Your task to perform on an android device: turn off notifications in google photos Image 0: 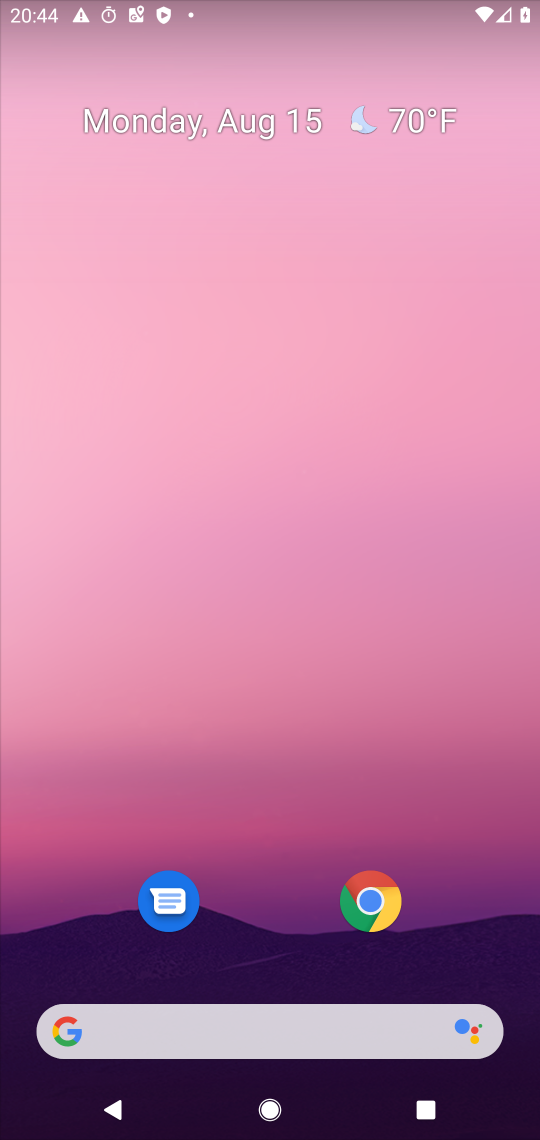
Step 0: drag from (254, 671) to (305, 62)
Your task to perform on an android device: turn off notifications in google photos Image 1: 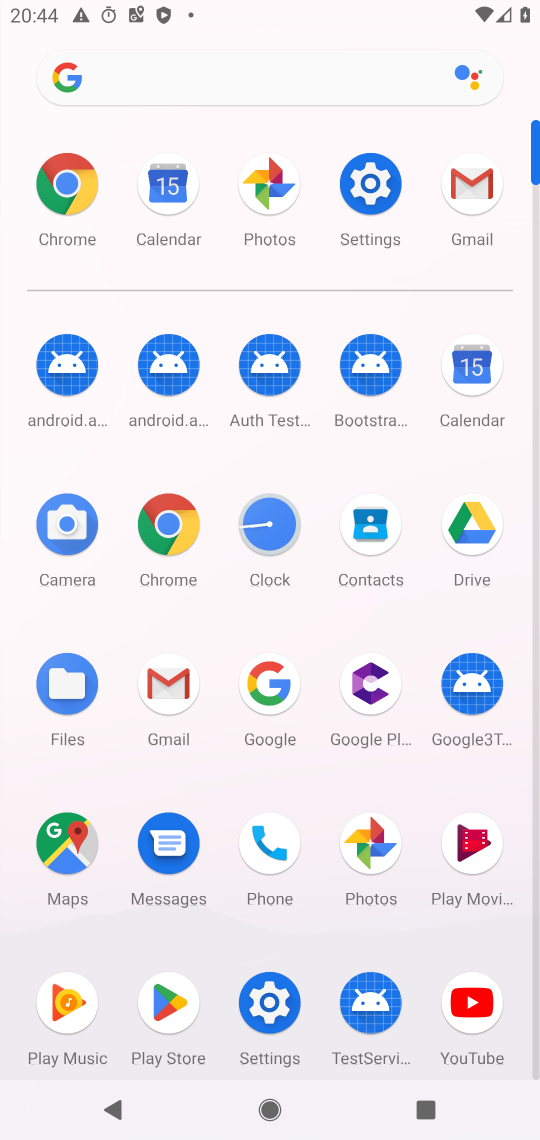
Step 1: click (377, 864)
Your task to perform on an android device: turn off notifications in google photos Image 2: 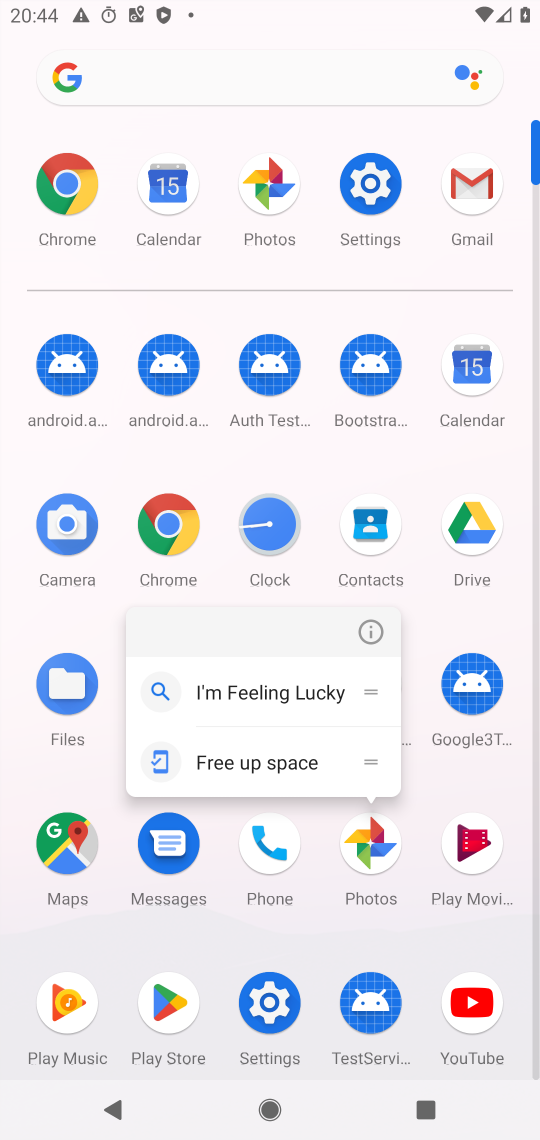
Step 2: click (381, 851)
Your task to perform on an android device: turn off notifications in google photos Image 3: 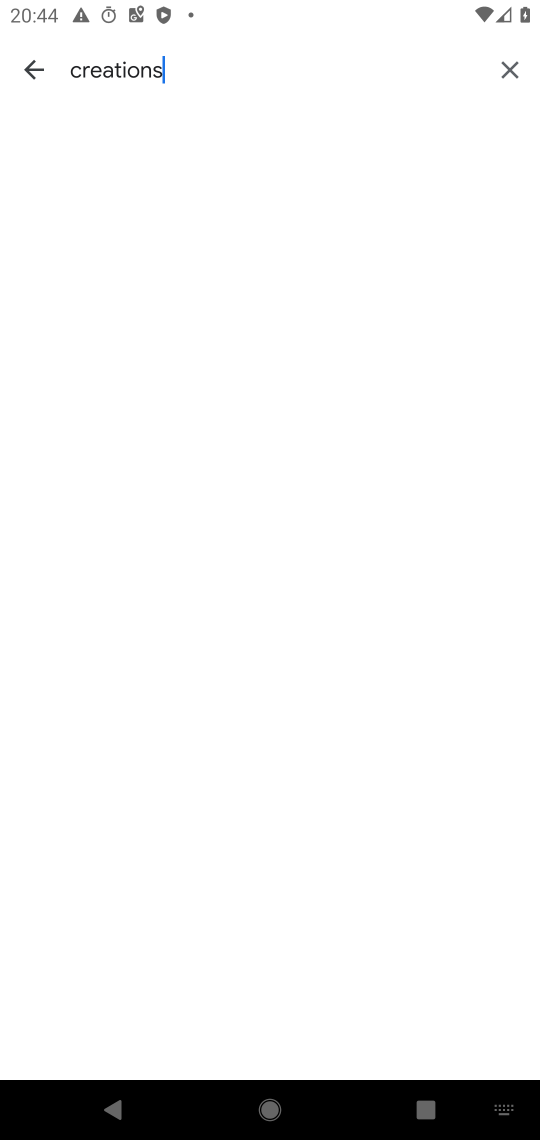
Step 3: click (36, 71)
Your task to perform on an android device: turn off notifications in google photos Image 4: 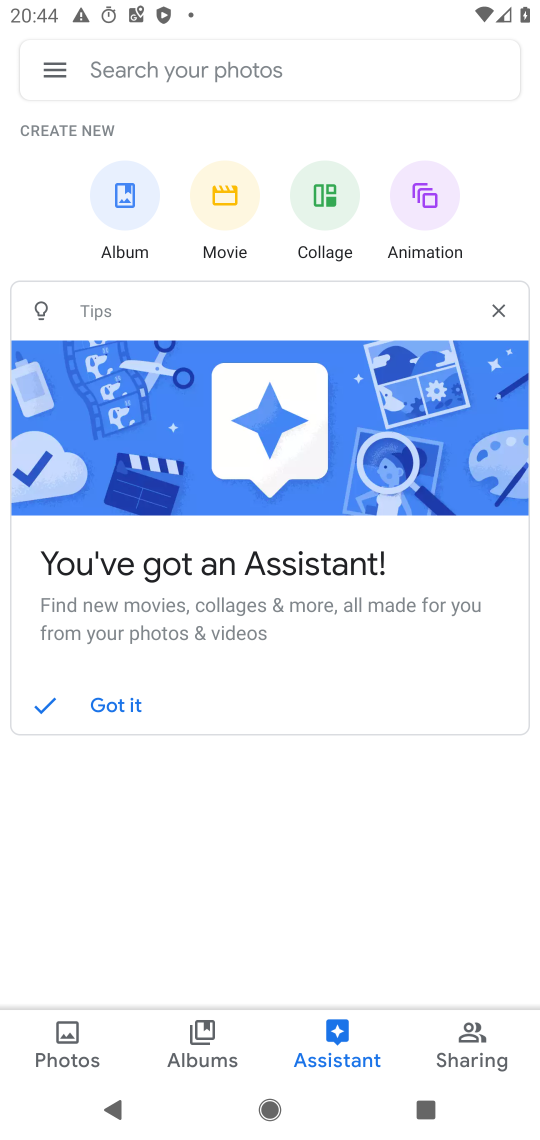
Step 4: click (50, 69)
Your task to perform on an android device: turn off notifications in google photos Image 5: 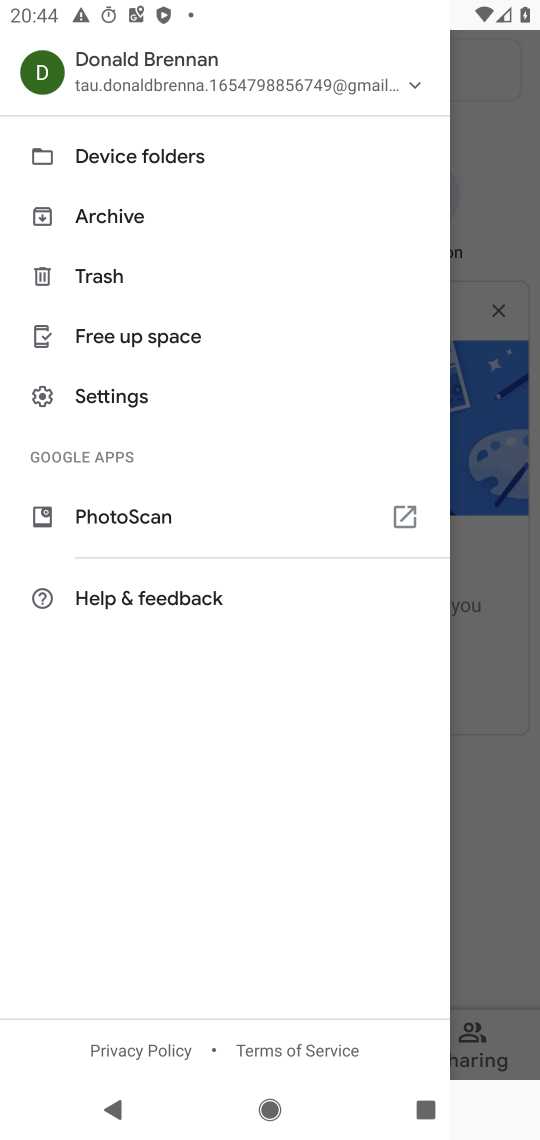
Step 5: click (136, 417)
Your task to perform on an android device: turn off notifications in google photos Image 6: 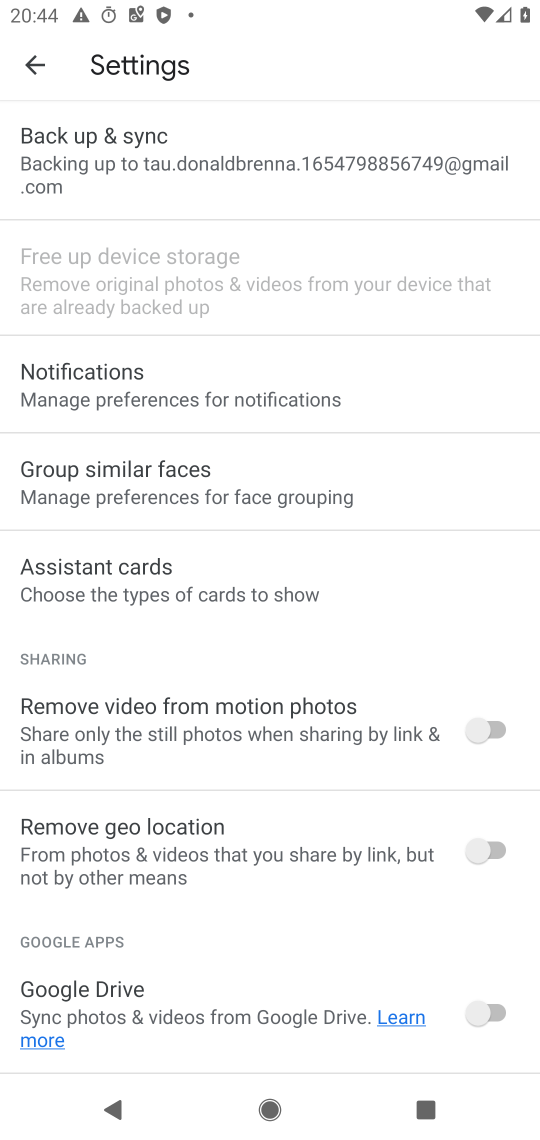
Step 6: click (188, 391)
Your task to perform on an android device: turn off notifications in google photos Image 7: 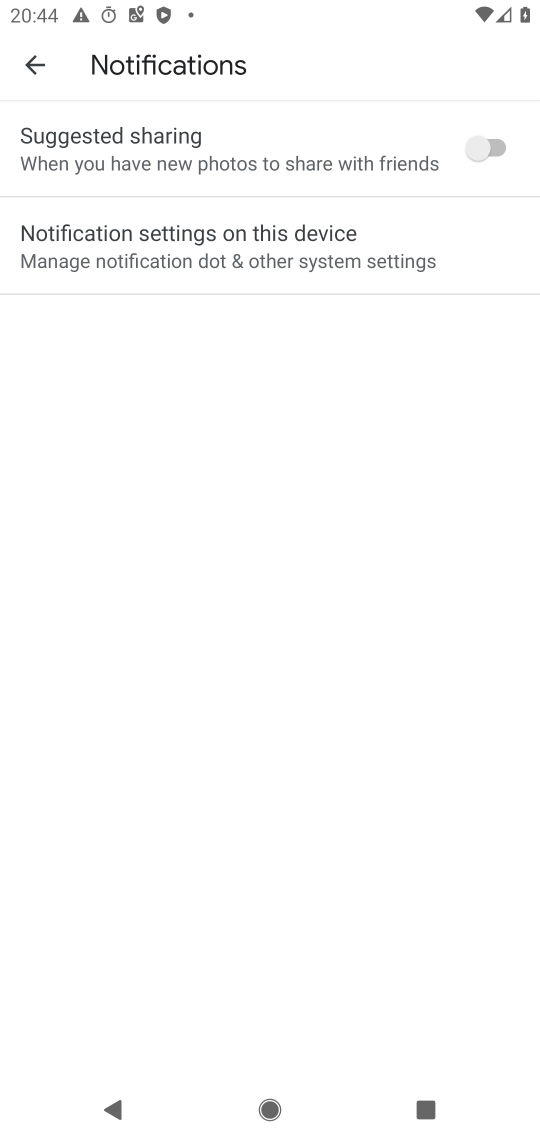
Step 7: click (179, 243)
Your task to perform on an android device: turn off notifications in google photos Image 8: 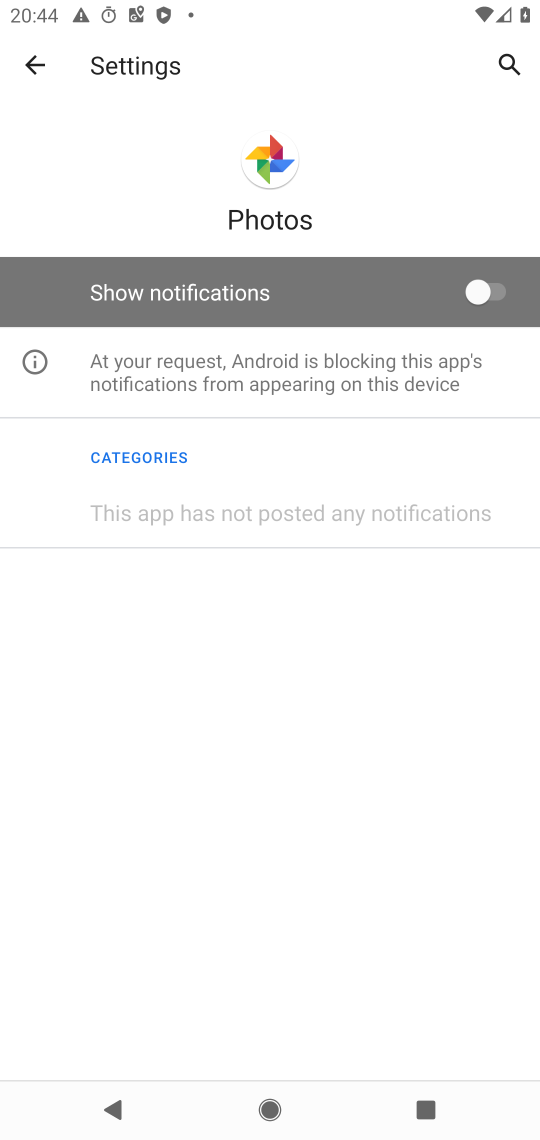
Step 8: task complete